Your task to perform on an android device: Show me popular videos on Youtube Image 0: 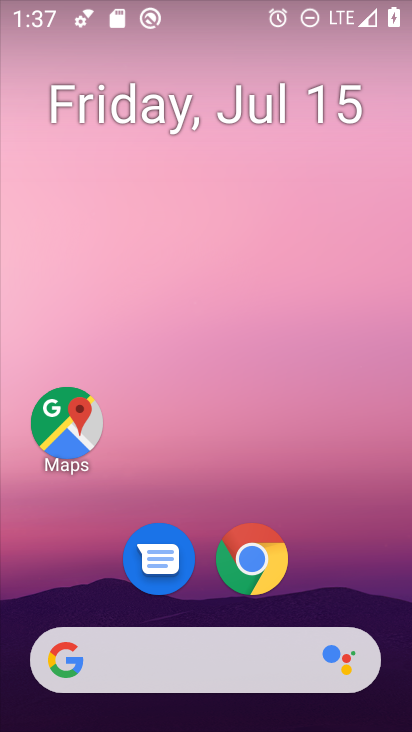
Step 0: drag from (356, 582) to (368, 74)
Your task to perform on an android device: Show me popular videos on Youtube Image 1: 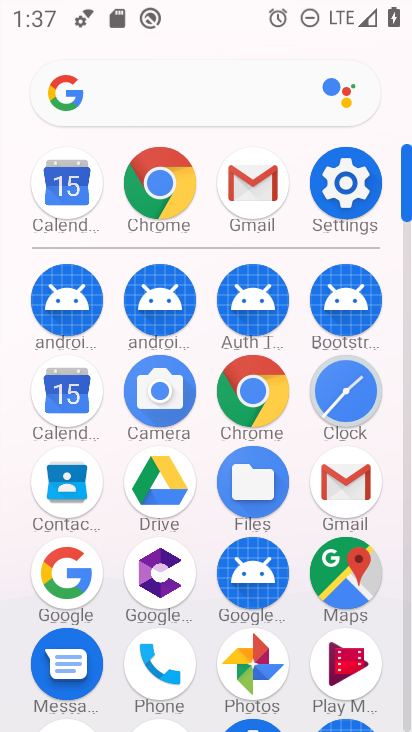
Step 1: drag from (387, 453) to (404, 177)
Your task to perform on an android device: Show me popular videos on Youtube Image 2: 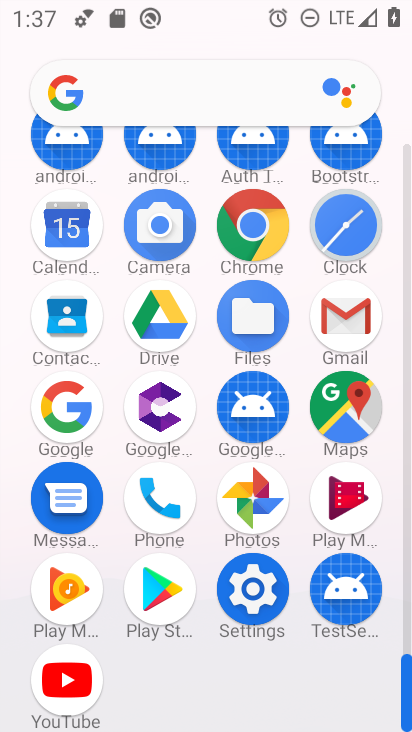
Step 2: click (77, 683)
Your task to perform on an android device: Show me popular videos on Youtube Image 3: 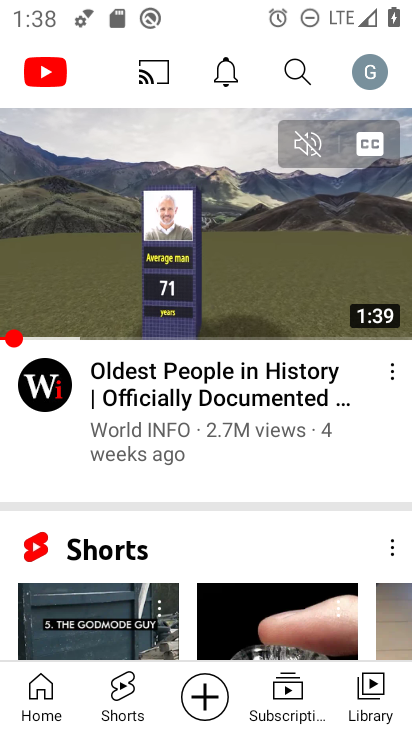
Step 3: task complete